Your task to perform on an android device: Open display settings Image 0: 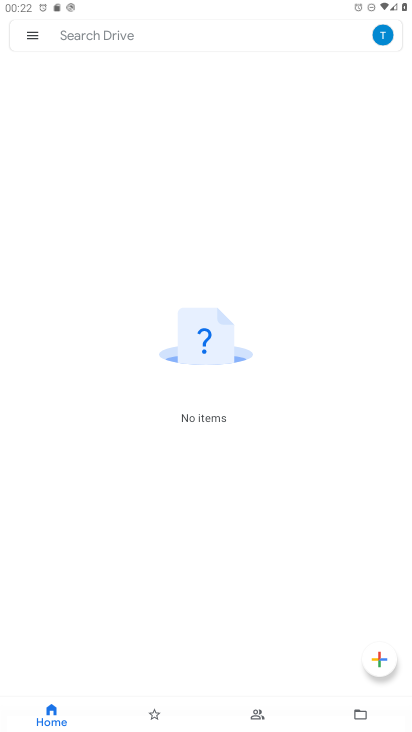
Step 0: press home button
Your task to perform on an android device: Open display settings Image 1: 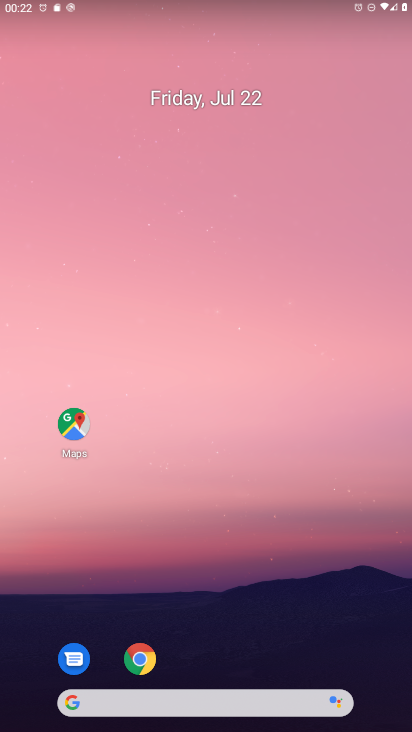
Step 1: drag from (198, 698) to (256, 127)
Your task to perform on an android device: Open display settings Image 2: 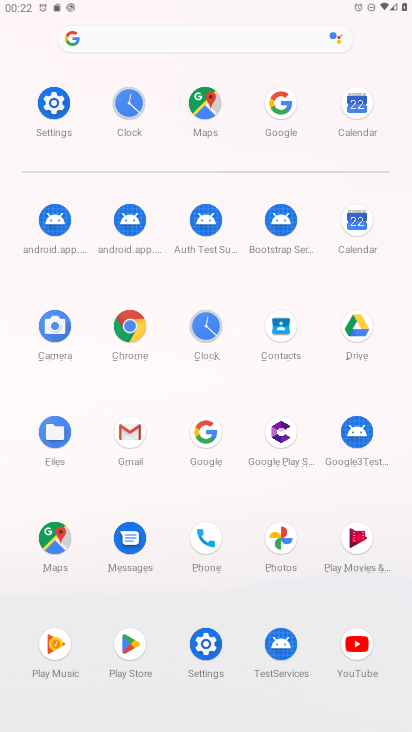
Step 2: click (55, 104)
Your task to perform on an android device: Open display settings Image 3: 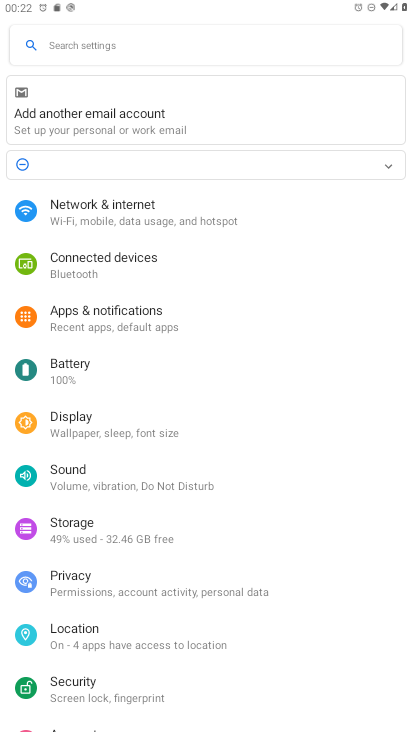
Step 3: click (80, 423)
Your task to perform on an android device: Open display settings Image 4: 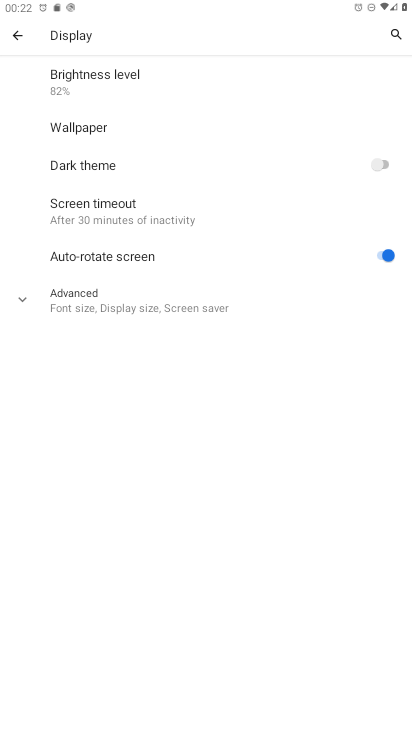
Step 4: task complete